Your task to perform on an android device: Search for Mexican restaurants on Maps Image 0: 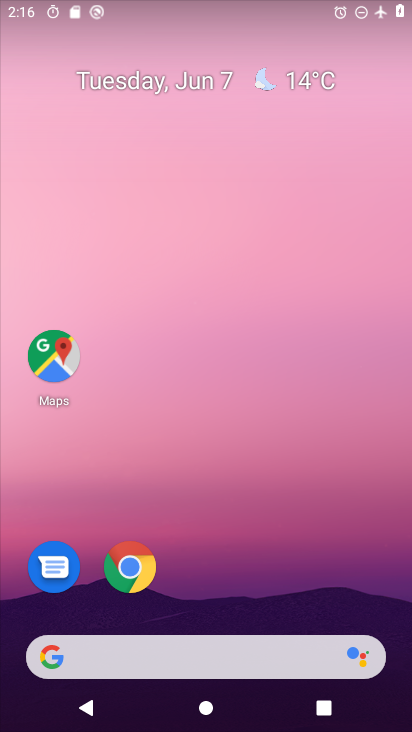
Step 0: drag from (313, 648) to (346, 69)
Your task to perform on an android device: Search for Mexican restaurants on Maps Image 1: 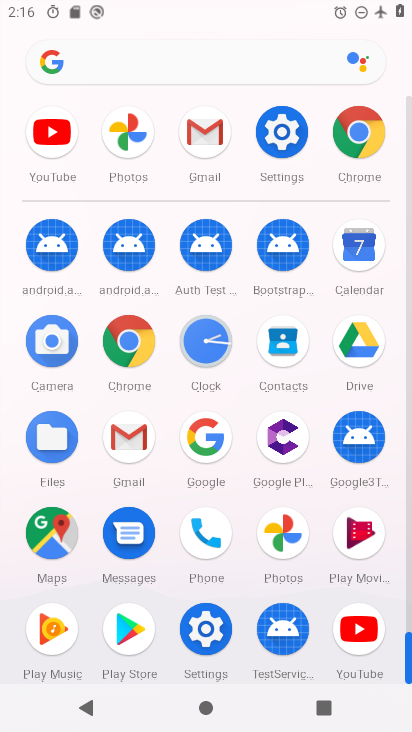
Step 1: click (66, 552)
Your task to perform on an android device: Search for Mexican restaurants on Maps Image 2: 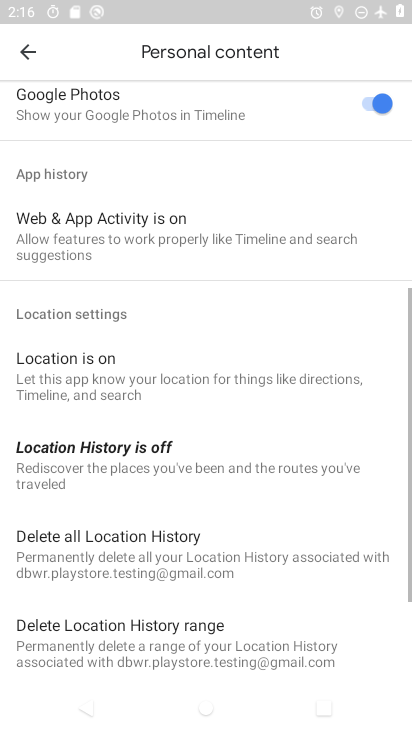
Step 2: click (39, 50)
Your task to perform on an android device: Search for Mexican restaurants on Maps Image 3: 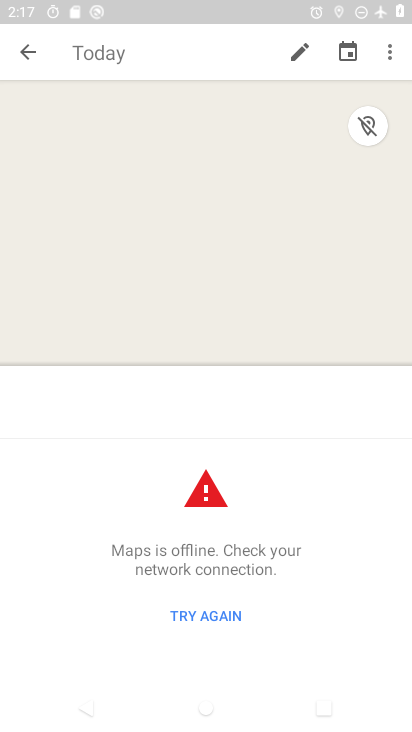
Step 3: click (32, 55)
Your task to perform on an android device: Search for Mexican restaurants on Maps Image 4: 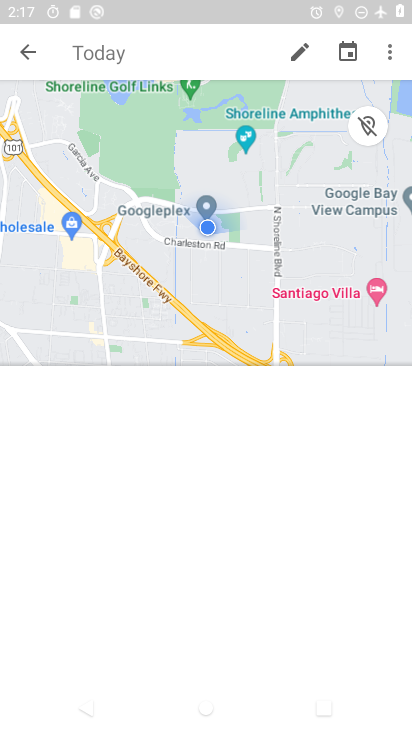
Step 4: task complete